Your task to perform on an android device: open app "Speedtest by Ookla" (install if not already installed) and enter user name: "hyena@outlook.com" and password: "terminators" Image 0: 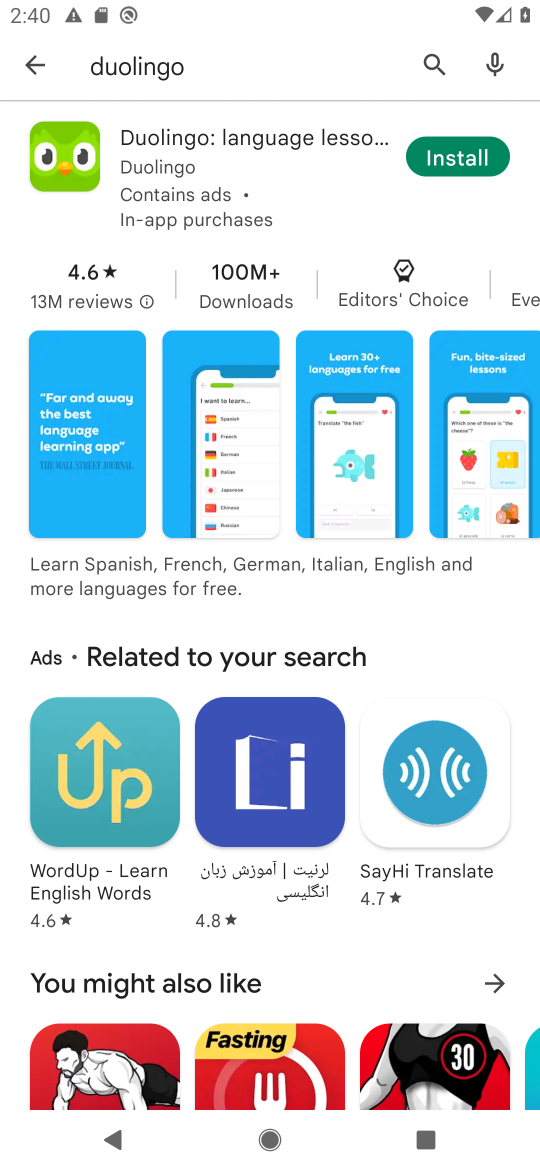
Step 0: press home button
Your task to perform on an android device: open app "Speedtest by Ookla" (install if not already installed) and enter user name: "hyena@outlook.com" and password: "terminators" Image 1: 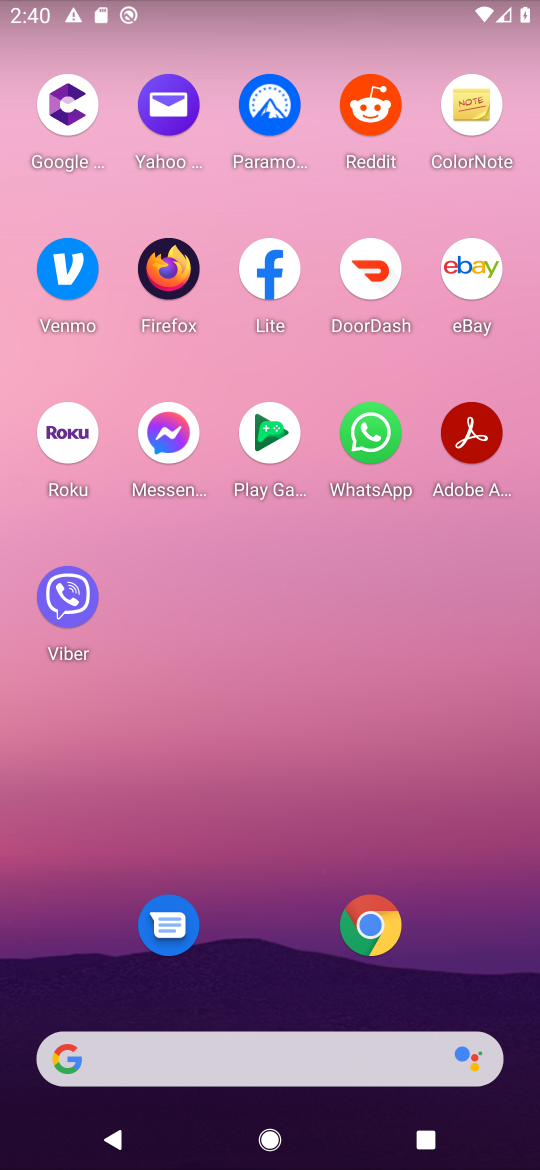
Step 1: click (268, 199)
Your task to perform on an android device: open app "Speedtest by Ookla" (install if not already installed) and enter user name: "hyena@outlook.com" and password: "terminators" Image 2: 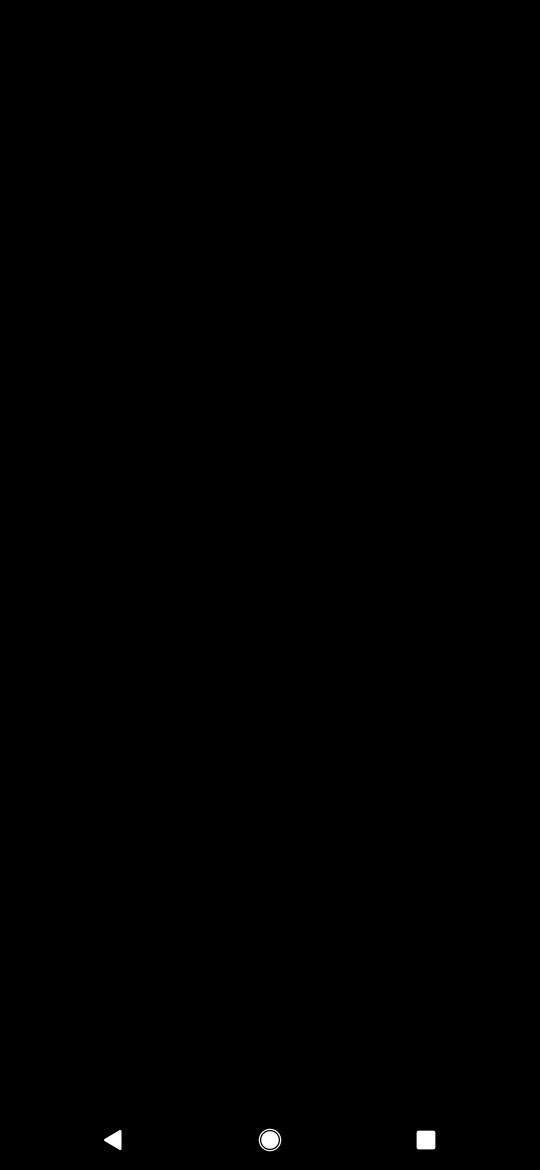
Step 2: press home button
Your task to perform on an android device: open app "Speedtest by Ookla" (install if not already installed) and enter user name: "hyena@outlook.com" and password: "terminators" Image 3: 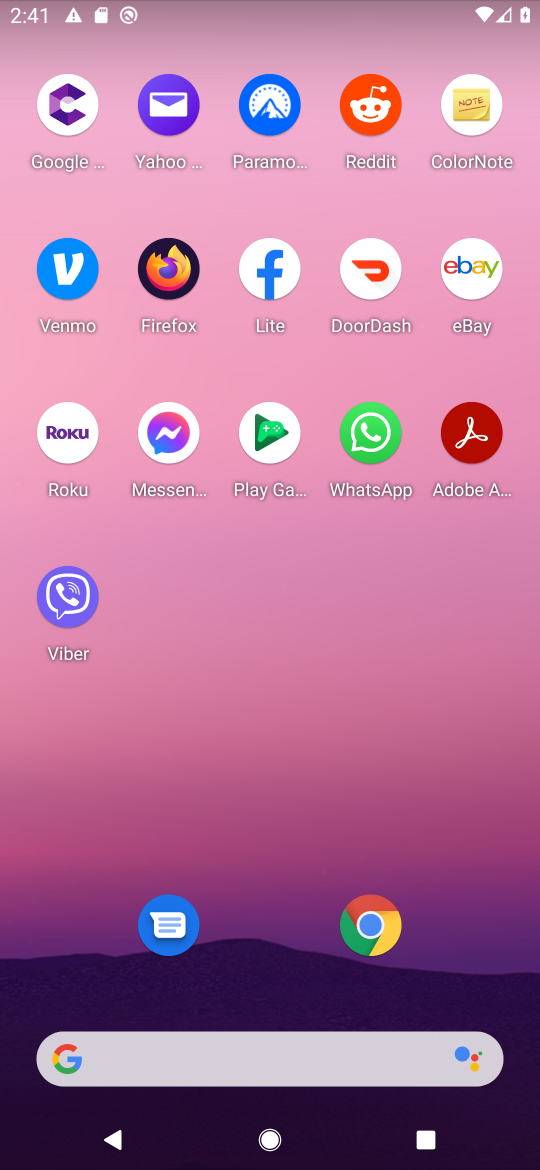
Step 3: drag from (255, 930) to (285, 144)
Your task to perform on an android device: open app "Speedtest by Ookla" (install if not already installed) and enter user name: "hyena@outlook.com" and password: "terminators" Image 4: 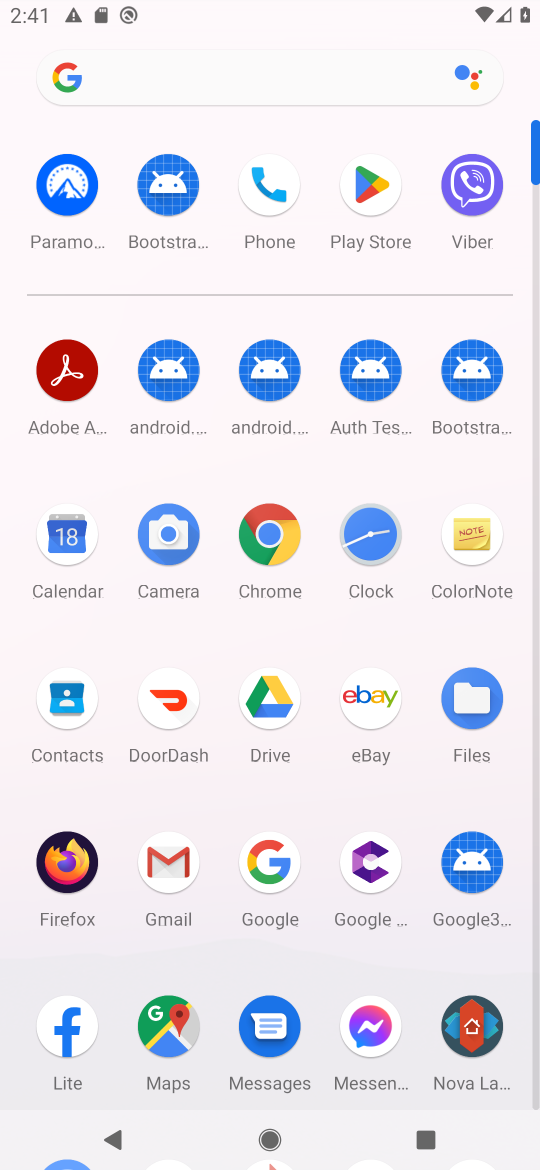
Step 4: click (364, 190)
Your task to perform on an android device: open app "Speedtest by Ookla" (install if not already installed) and enter user name: "hyena@outlook.com" and password: "terminators" Image 5: 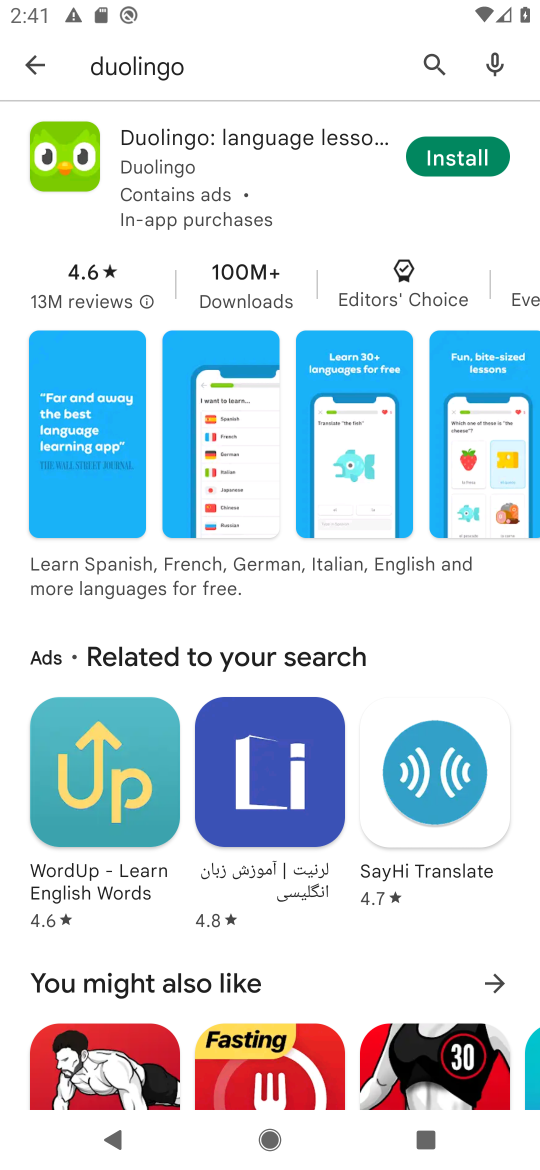
Step 5: click (71, 132)
Your task to perform on an android device: open app "Speedtest by Ookla" (install if not already installed) and enter user name: "hyena@outlook.com" and password: "terminators" Image 6: 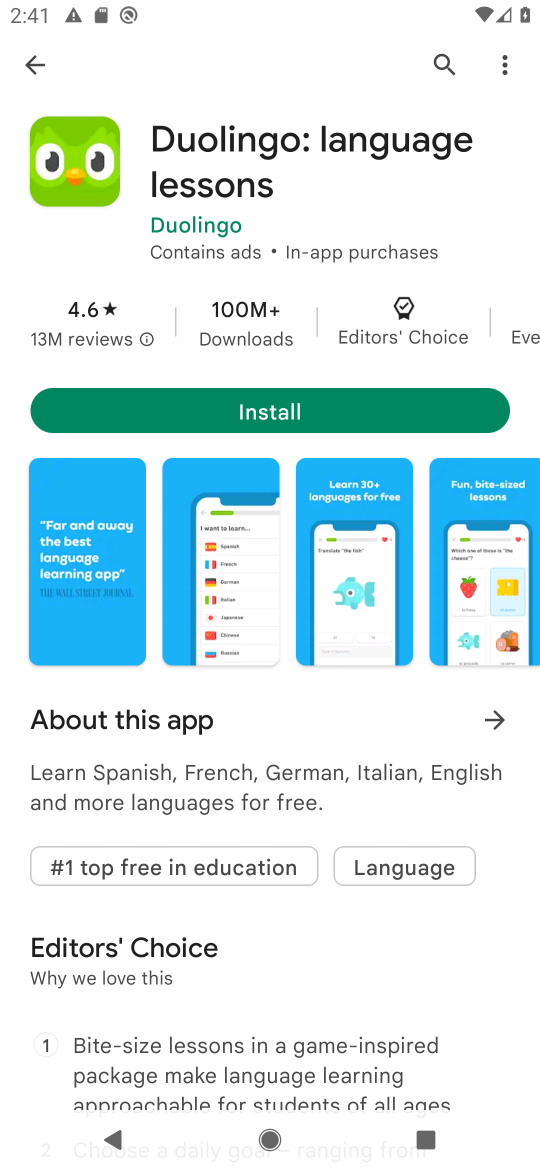
Step 6: click (32, 54)
Your task to perform on an android device: open app "Speedtest by Ookla" (install if not already installed) and enter user name: "hyena@outlook.com" and password: "terminators" Image 7: 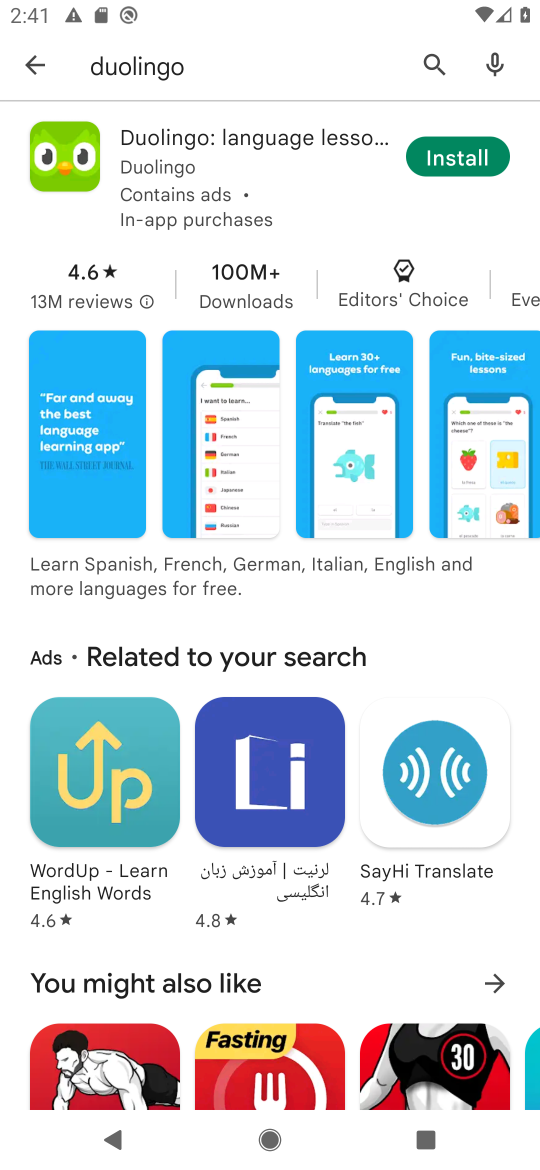
Step 7: click (31, 69)
Your task to perform on an android device: open app "Speedtest by Ookla" (install if not already installed) and enter user name: "hyena@outlook.com" and password: "terminators" Image 8: 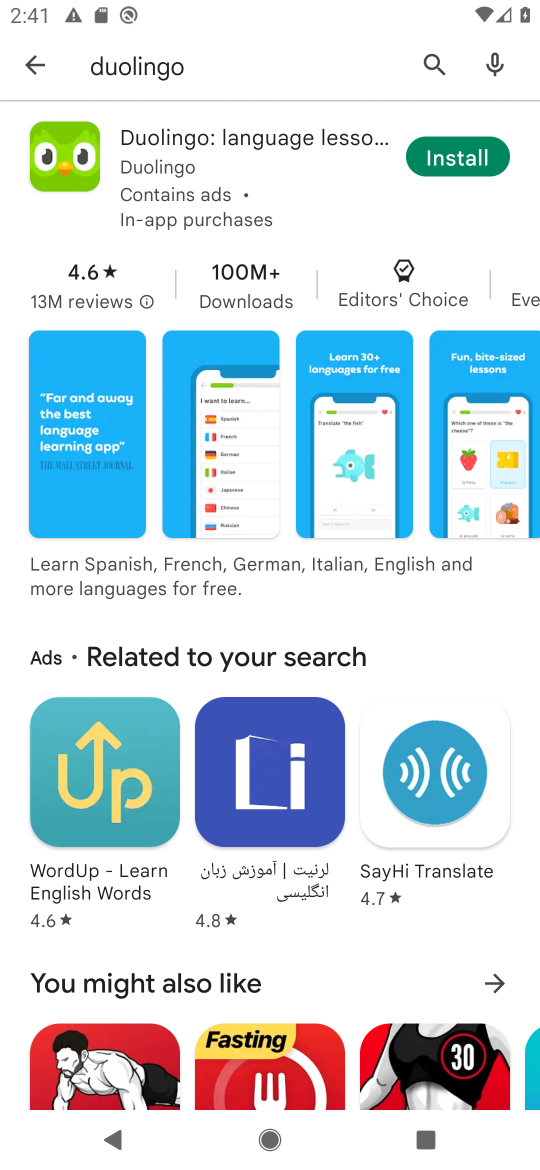
Step 8: click (32, 59)
Your task to perform on an android device: open app "Speedtest by Ookla" (install if not already installed) and enter user name: "hyena@outlook.com" and password: "terminators" Image 9: 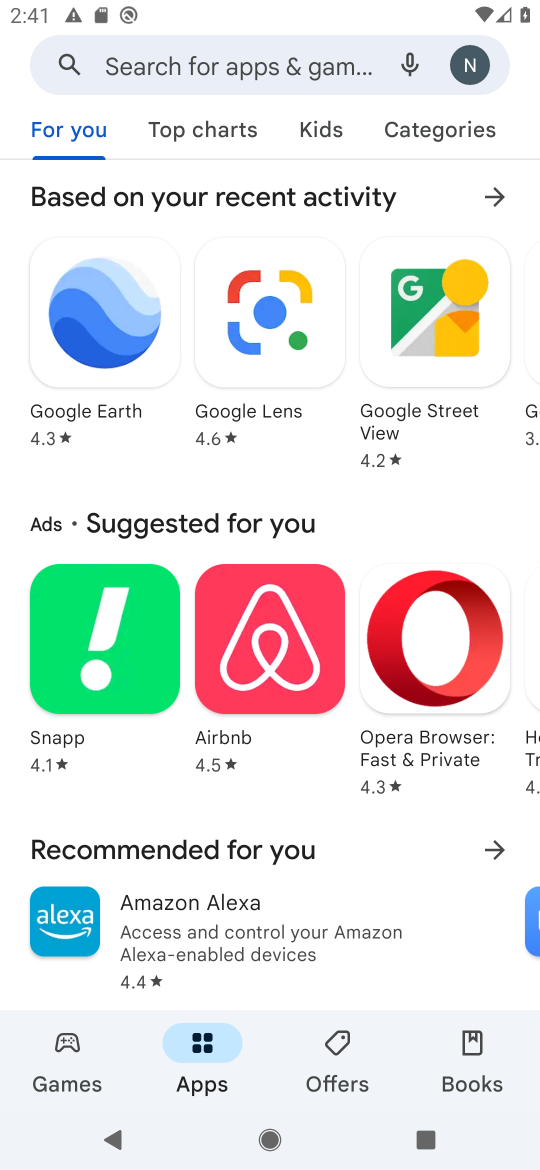
Step 9: click (193, 57)
Your task to perform on an android device: open app "Speedtest by Ookla" (install if not already installed) and enter user name: "hyena@outlook.com" and password: "terminators" Image 10: 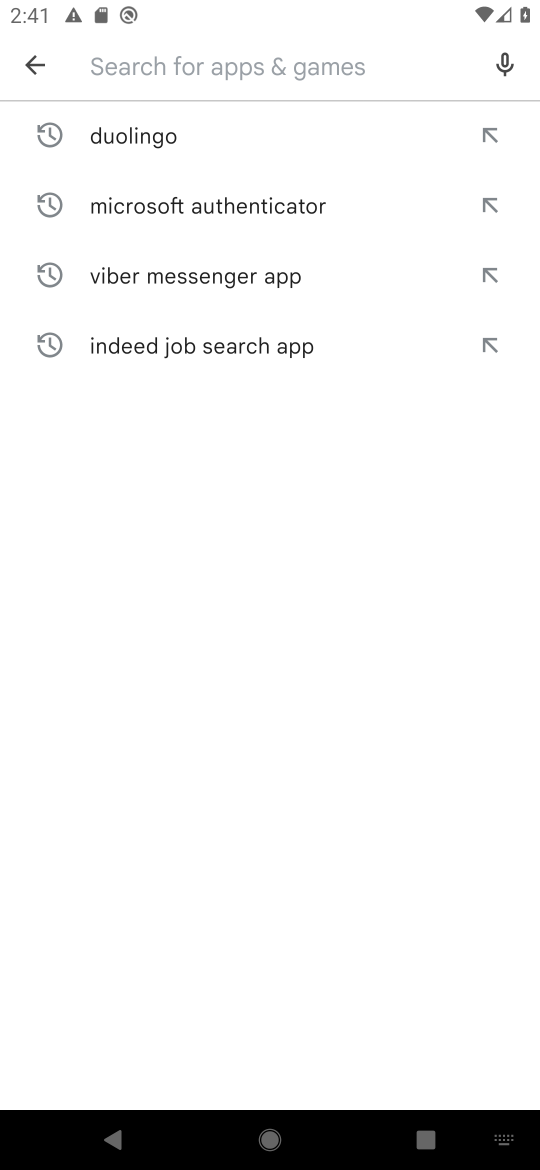
Step 10: type "Speedtest by Ookla"
Your task to perform on an android device: open app "Speedtest by Ookla" (install if not already installed) and enter user name: "hyena@outlook.com" and password: "terminators" Image 11: 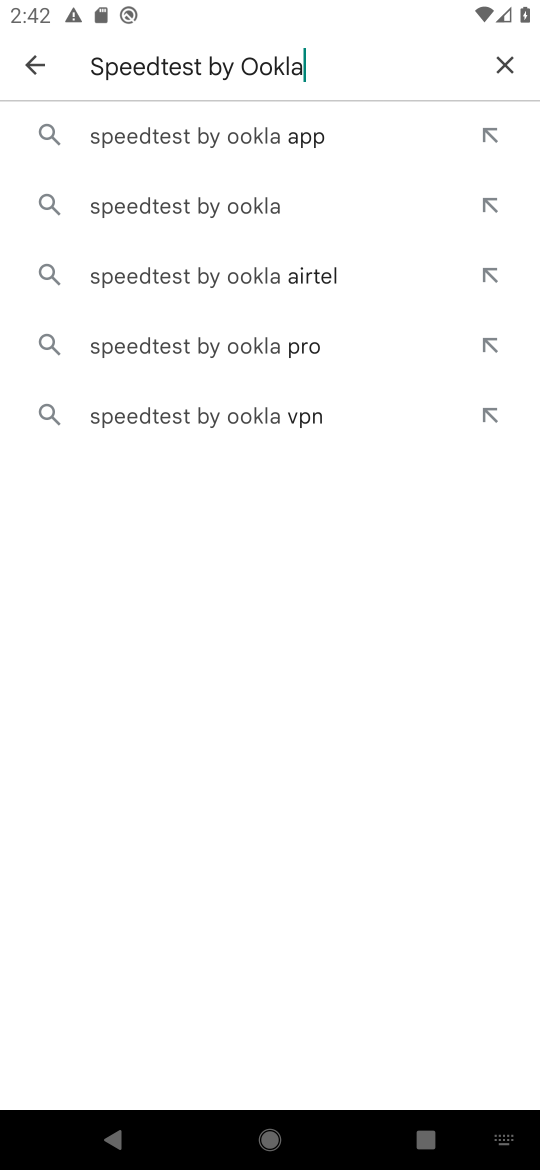
Step 11: click (219, 136)
Your task to perform on an android device: open app "Speedtest by Ookla" (install if not already installed) and enter user name: "hyena@outlook.com" and password: "terminators" Image 12: 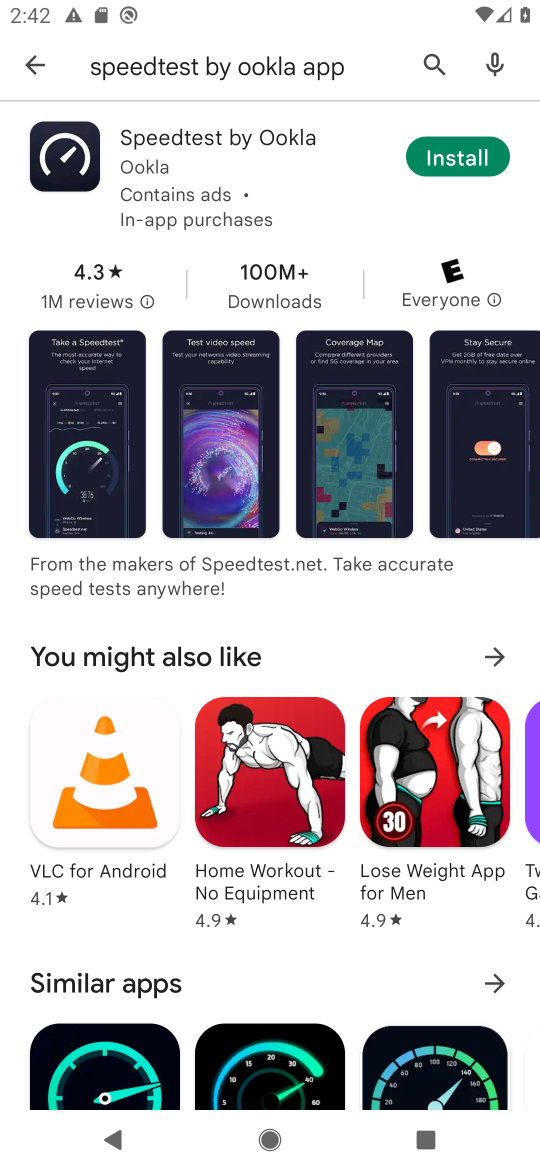
Step 12: click (451, 154)
Your task to perform on an android device: open app "Speedtest by Ookla" (install if not already installed) and enter user name: "hyena@outlook.com" and password: "terminators" Image 13: 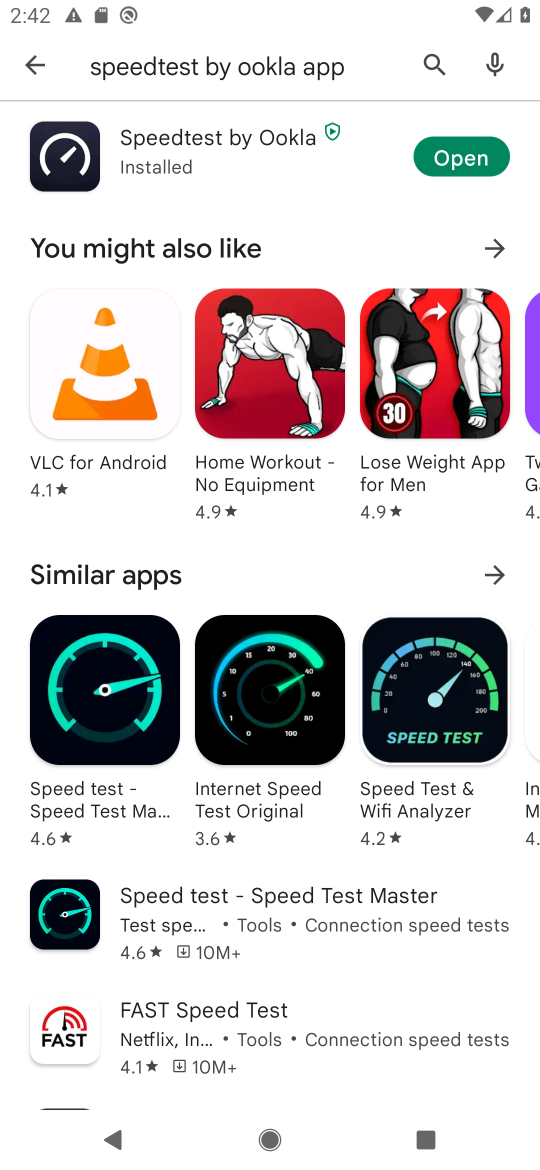
Step 13: click (451, 154)
Your task to perform on an android device: open app "Speedtest by Ookla" (install if not already installed) and enter user name: "hyena@outlook.com" and password: "terminators" Image 14: 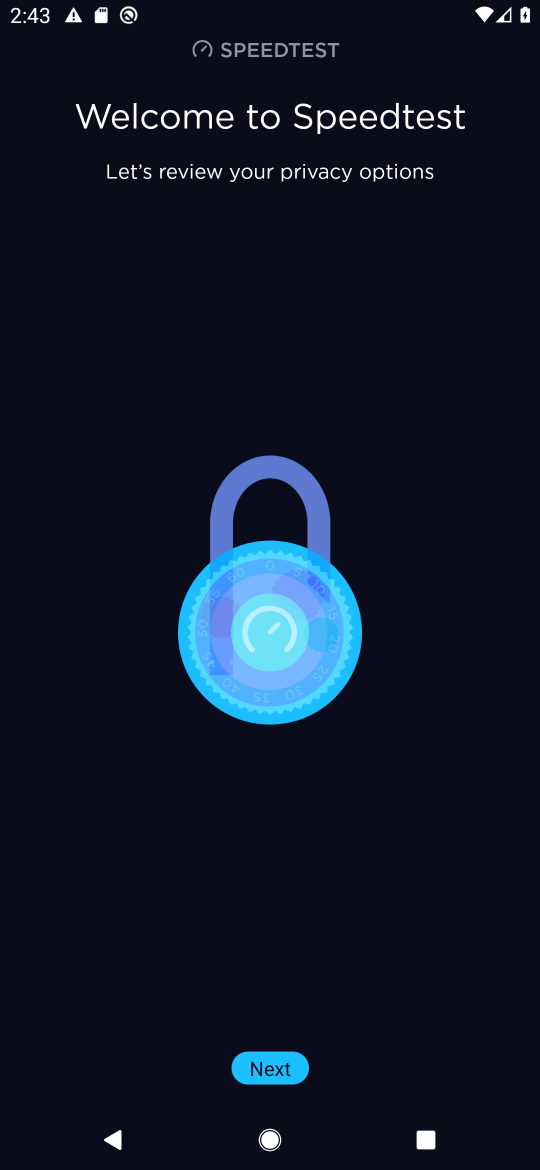
Step 14: task complete